Your task to perform on an android device: turn on bluetooth scan Image 0: 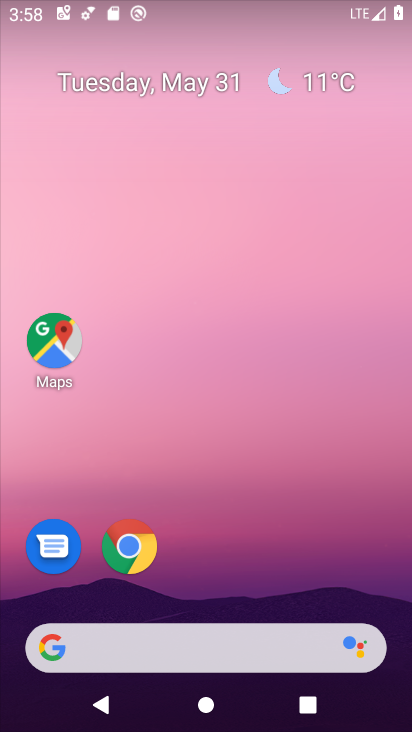
Step 0: drag from (272, 439) to (203, 13)
Your task to perform on an android device: turn on bluetooth scan Image 1: 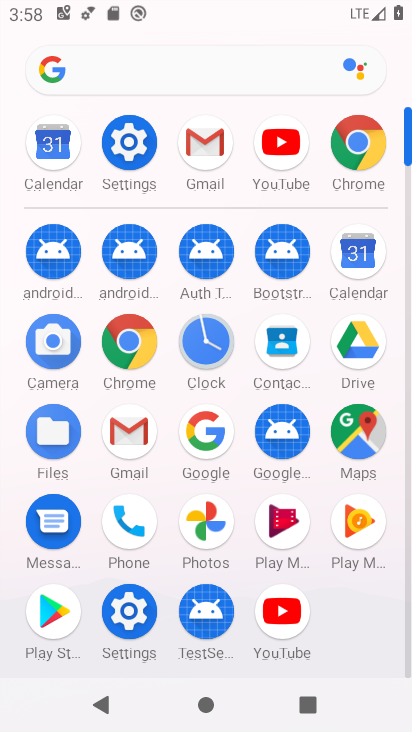
Step 1: click (129, 188)
Your task to perform on an android device: turn on bluetooth scan Image 2: 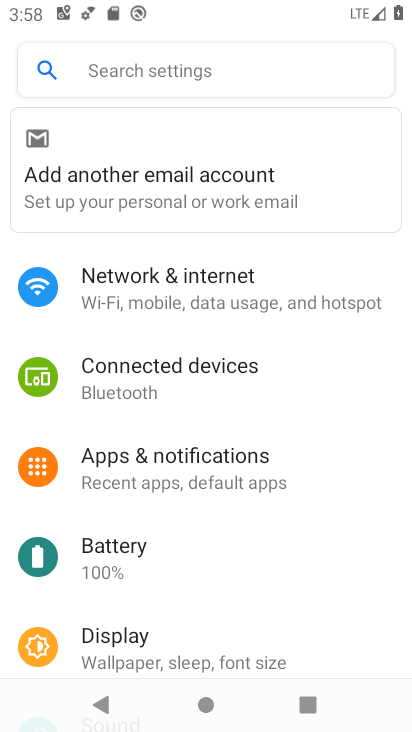
Step 2: drag from (240, 593) to (254, 184)
Your task to perform on an android device: turn on bluetooth scan Image 3: 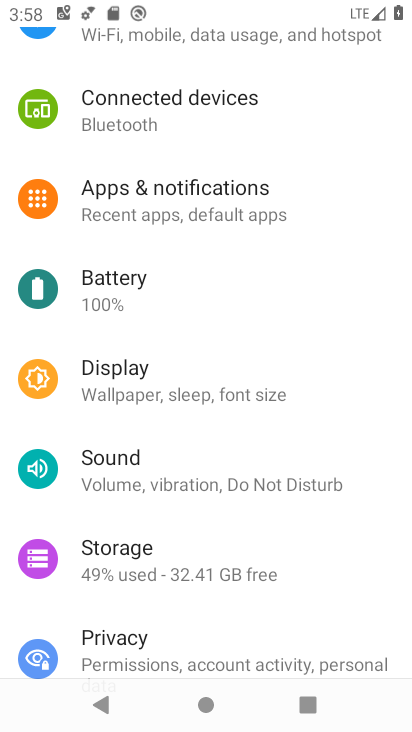
Step 3: drag from (223, 532) to (260, 241)
Your task to perform on an android device: turn on bluetooth scan Image 4: 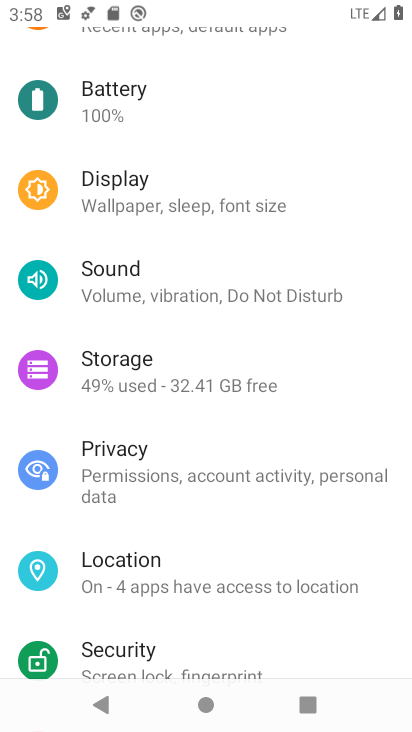
Step 4: click (203, 578)
Your task to perform on an android device: turn on bluetooth scan Image 5: 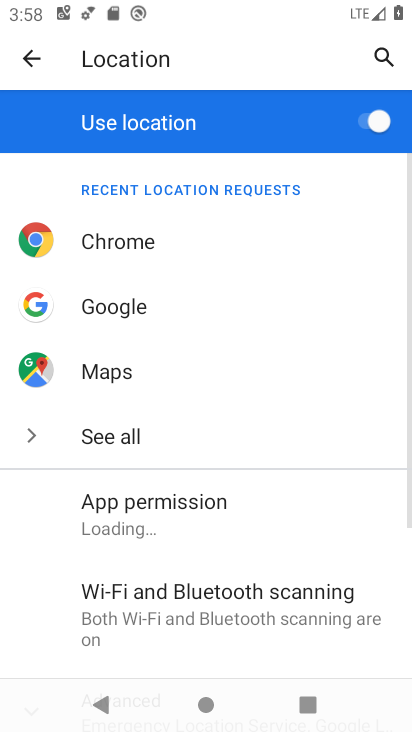
Step 5: click (263, 603)
Your task to perform on an android device: turn on bluetooth scan Image 6: 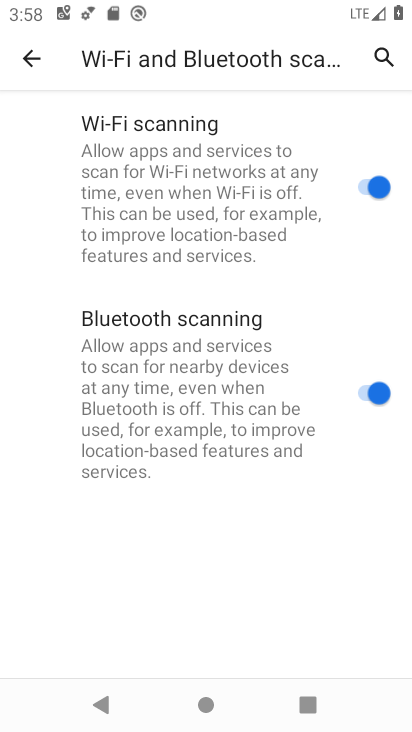
Step 6: task complete